Your task to perform on an android device: Open internet settings Image 0: 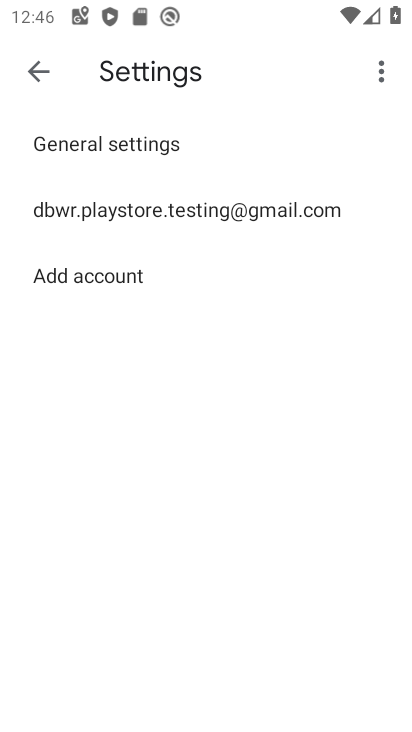
Step 0: press home button
Your task to perform on an android device: Open internet settings Image 1: 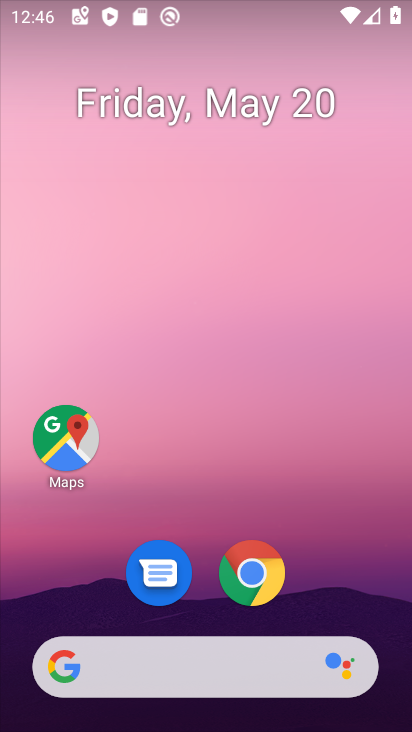
Step 1: drag from (193, 719) to (200, 107)
Your task to perform on an android device: Open internet settings Image 2: 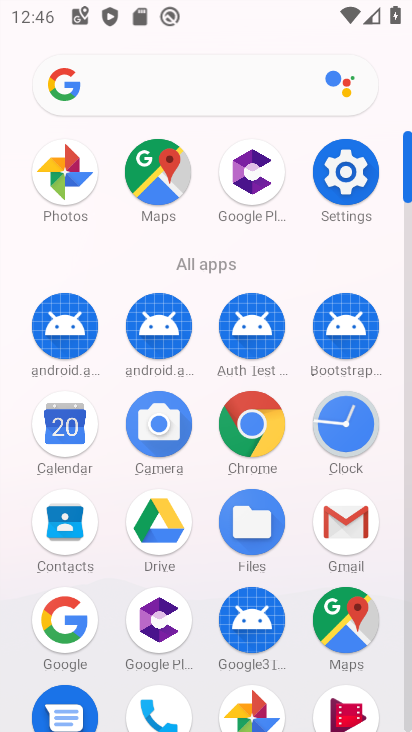
Step 2: click (342, 173)
Your task to perform on an android device: Open internet settings Image 3: 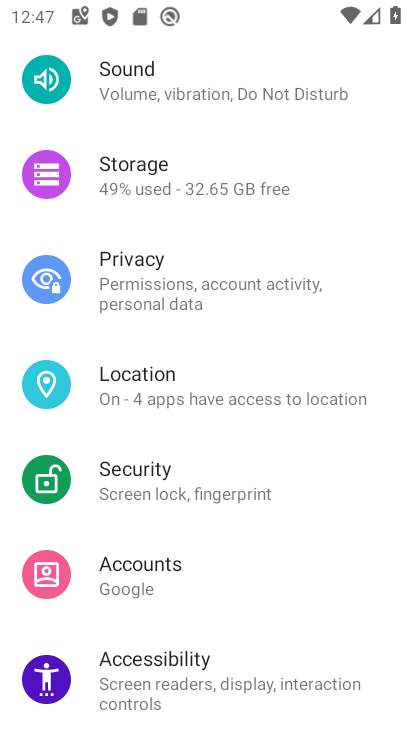
Step 3: drag from (159, 164) to (161, 664)
Your task to perform on an android device: Open internet settings Image 4: 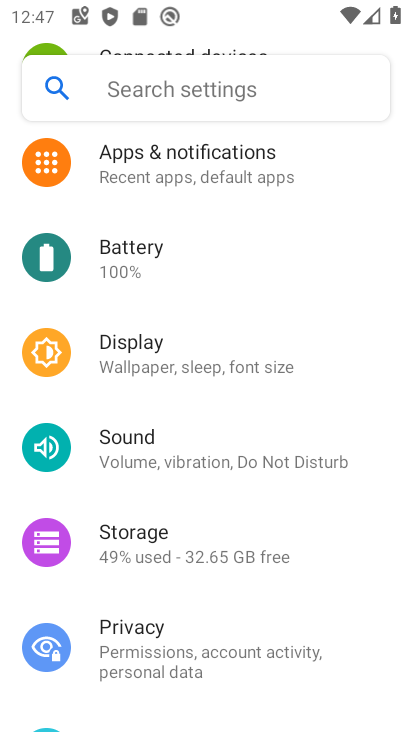
Step 4: drag from (175, 149) to (188, 667)
Your task to perform on an android device: Open internet settings Image 5: 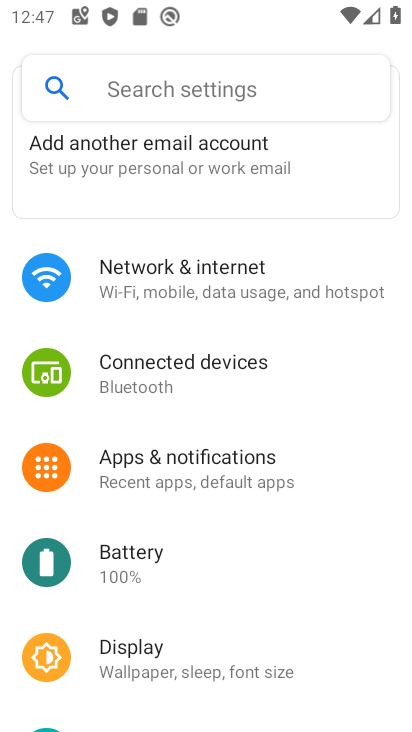
Step 5: click (175, 272)
Your task to perform on an android device: Open internet settings Image 6: 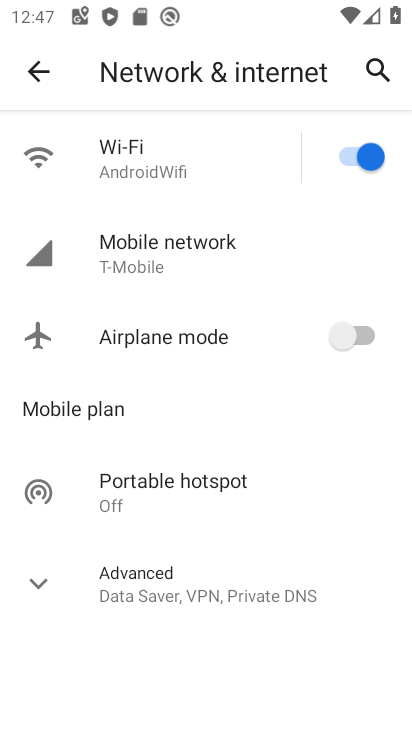
Step 6: task complete